Your task to perform on an android device: turn off improve location accuracy Image 0: 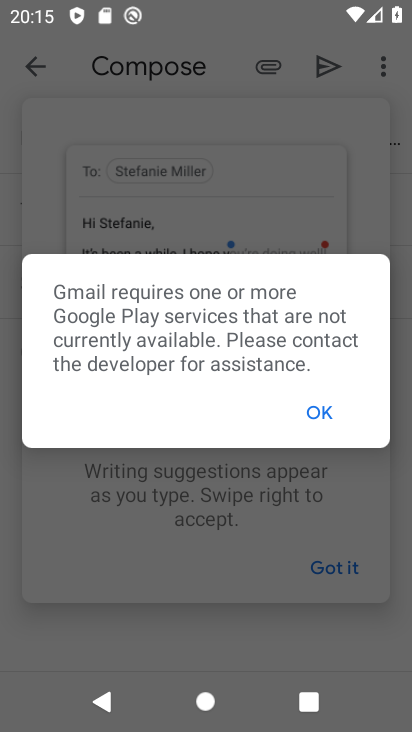
Step 0: press home button
Your task to perform on an android device: turn off improve location accuracy Image 1: 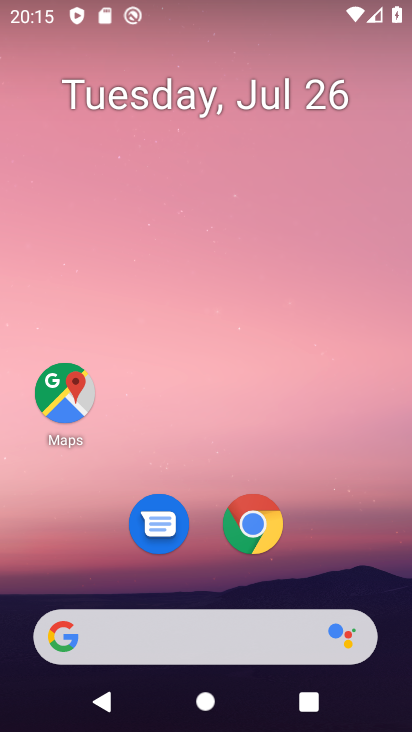
Step 1: drag from (150, 645) to (294, 139)
Your task to perform on an android device: turn off improve location accuracy Image 2: 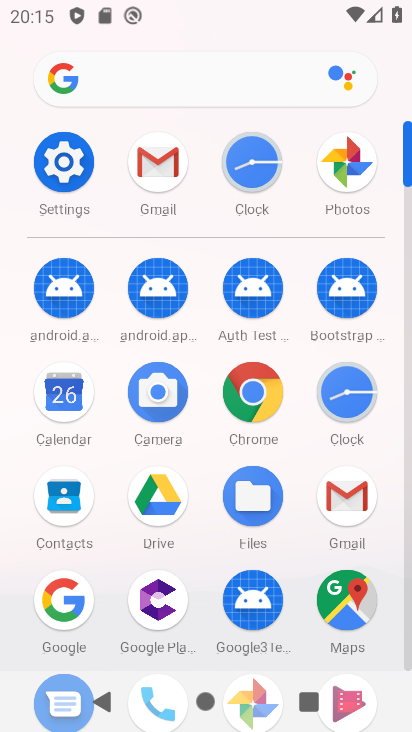
Step 2: click (72, 177)
Your task to perform on an android device: turn off improve location accuracy Image 3: 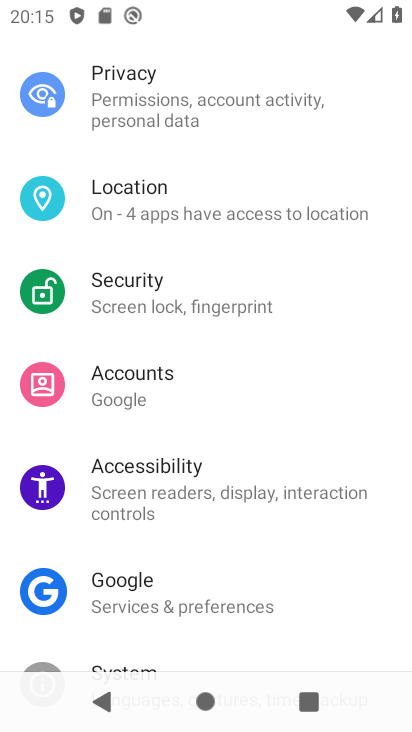
Step 3: click (169, 202)
Your task to perform on an android device: turn off improve location accuracy Image 4: 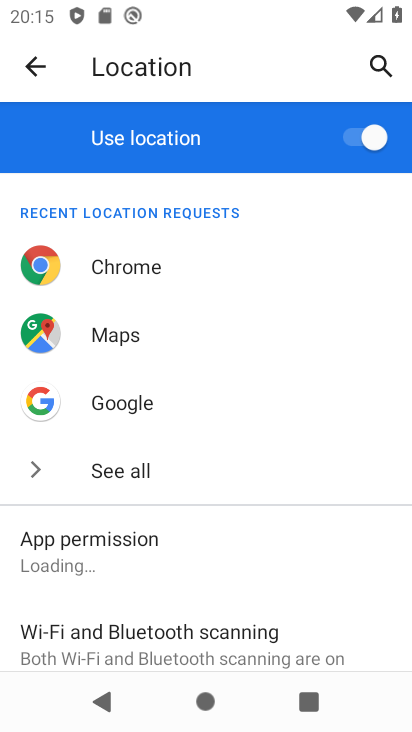
Step 4: drag from (253, 572) to (361, 259)
Your task to perform on an android device: turn off improve location accuracy Image 5: 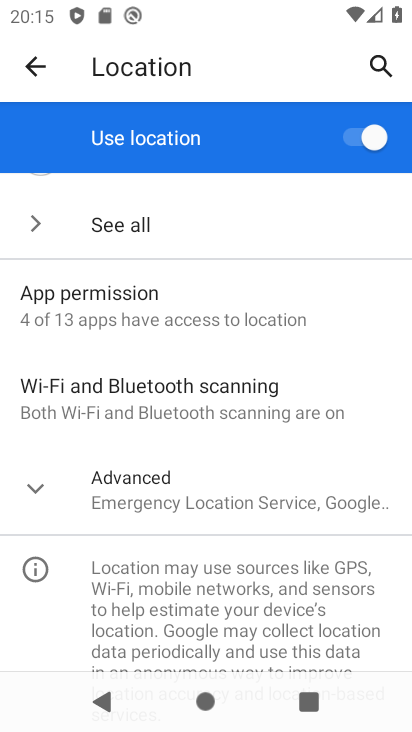
Step 5: click (193, 506)
Your task to perform on an android device: turn off improve location accuracy Image 6: 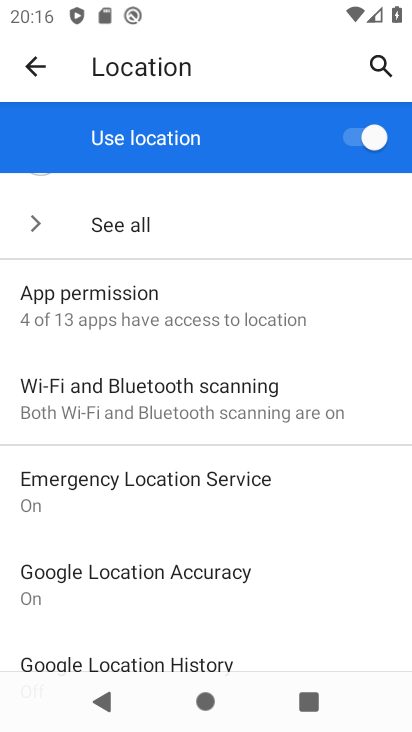
Step 6: click (199, 574)
Your task to perform on an android device: turn off improve location accuracy Image 7: 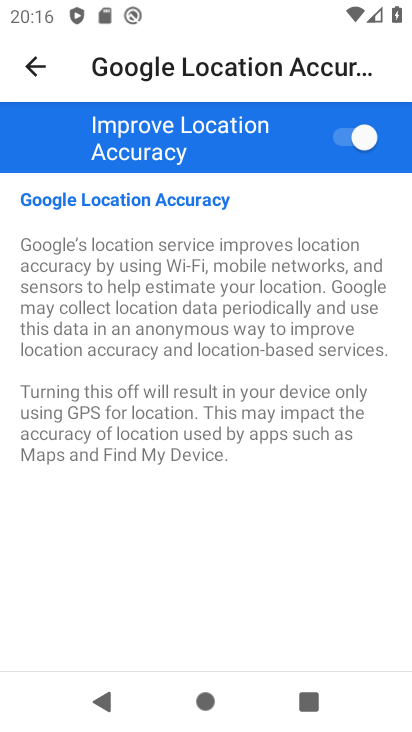
Step 7: click (345, 139)
Your task to perform on an android device: turn off improve location accuracy Image 8: 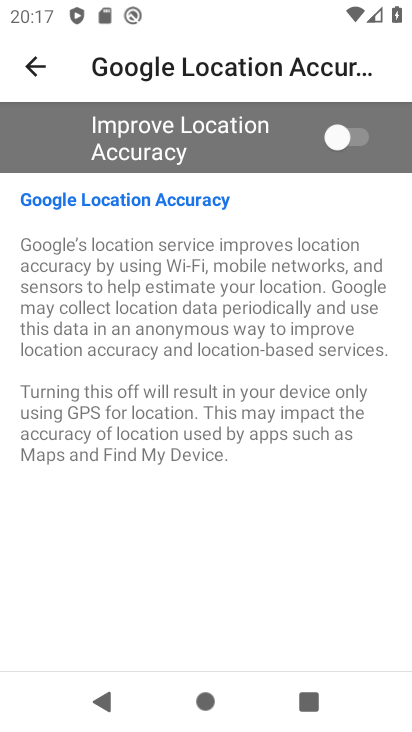
Step 8: task complete